Your task to perform on an android device: Set the phone to "Do not disturb". Image 0: 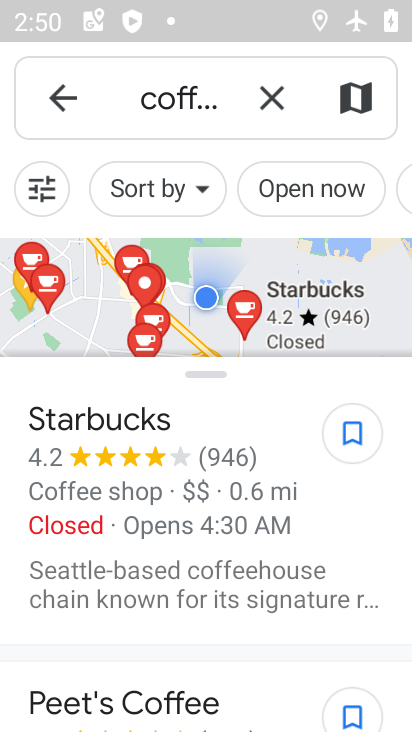
Step 0: press home button
Your task to perform on an android device: Set the phone to "Do not disturb". Image 1: 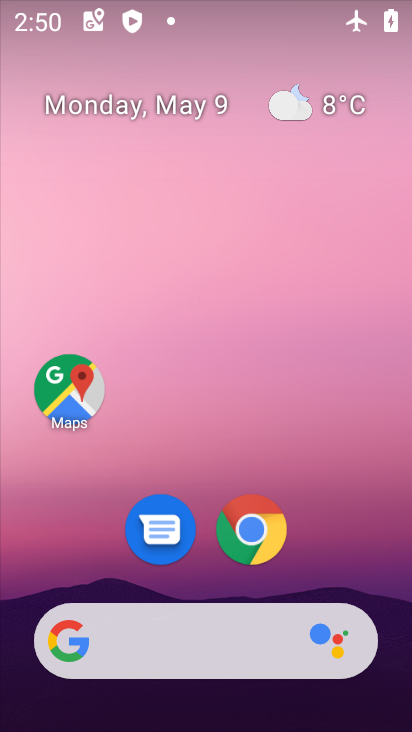
Step 1: drag from (198, 695) to (157, 2)
Your task to perform on an android device: Set the phone to "Do not disturb". Image 2: 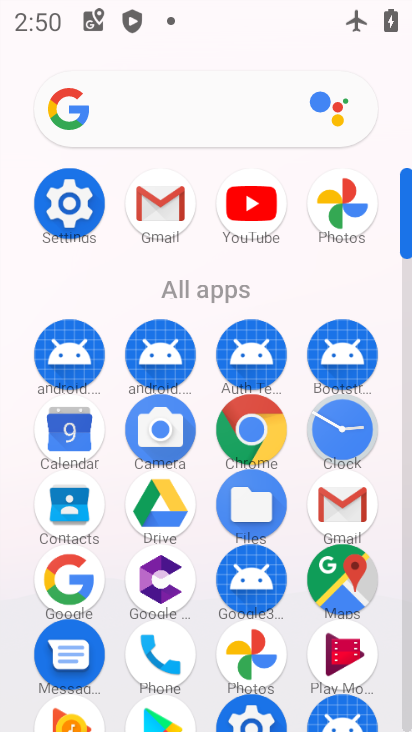
Step 2: click (78, 190)
Your task to perform on an android device: Set the phone to "Do not disturb". Image 3: 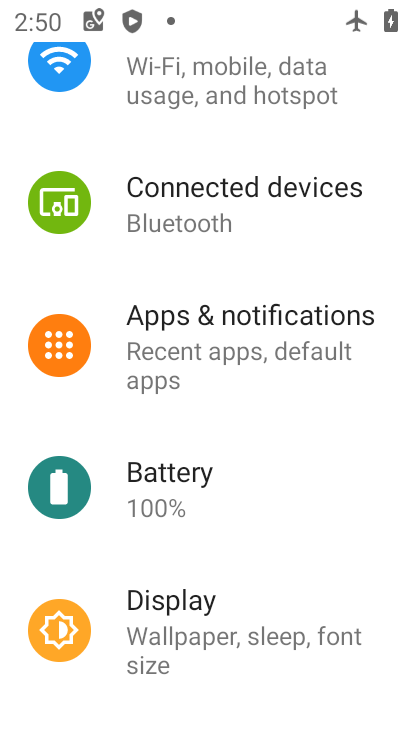
Step 3: drag from (251, 656) to (172, 58)
Your task to perform on an android device: Set the phone to "Do not disturb". Image 4: 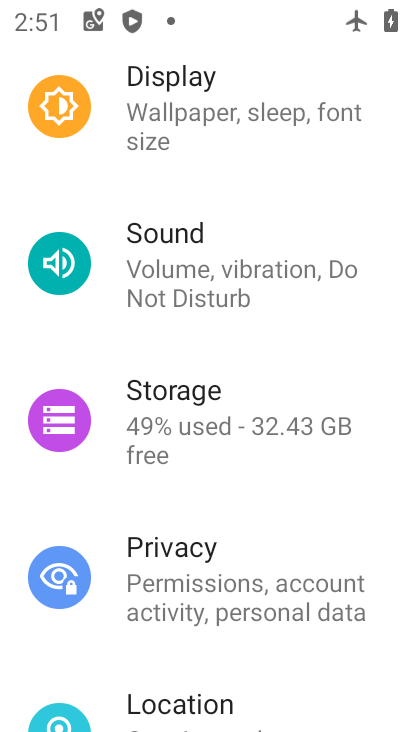
Step 4: click (180, 273)
Your task to perform on an android device: Set the phone to "Do not disturb". Image 5: 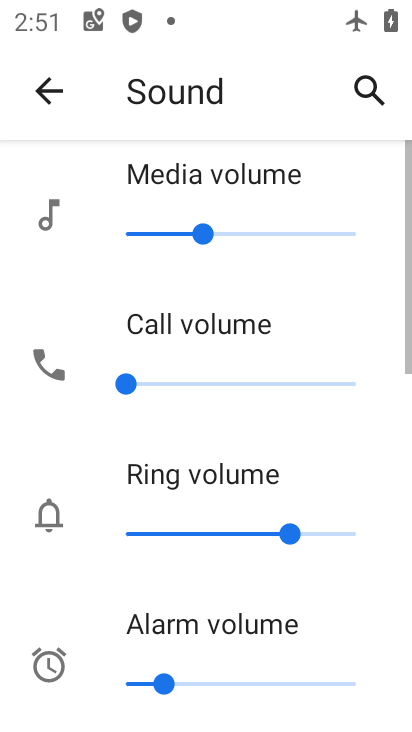
Step 5: drag from (221, 656) to (184, 23)
Your task to perform on an android device: Set the phone to "Do not disturb". Image 6: 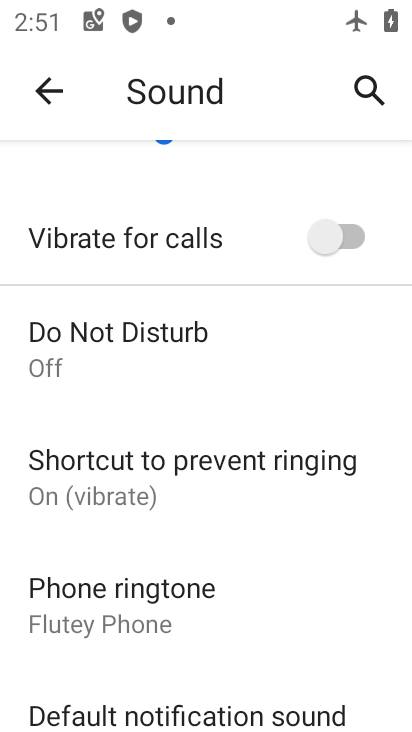
Step 6: click (171, 352)
Your task to perform on an android device: Set the phone to "Do not disturb". Image 7: 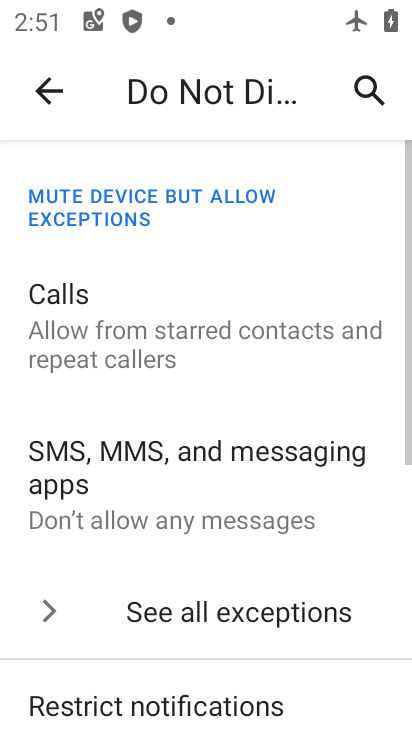
Step 7: drag from (206, 579) to (197, 68)
Your task to perform on an android device: Set the phone to "Do not disturb". Image 8: 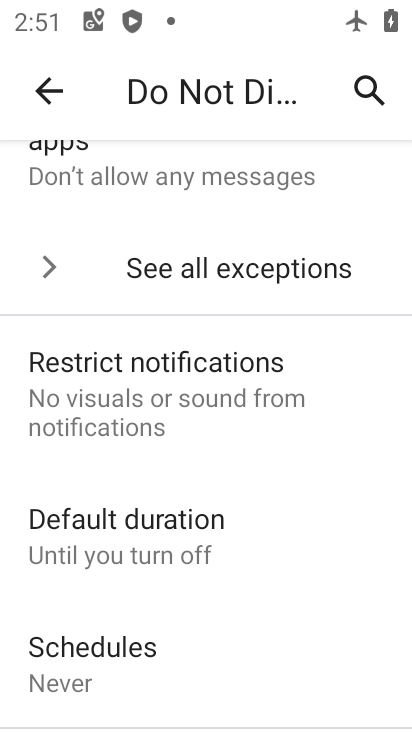
Step 8: drag from (169, 635) to (84, 38)
Your task to perform on an android device: Set the phone to "Do not disturb". Image 9: 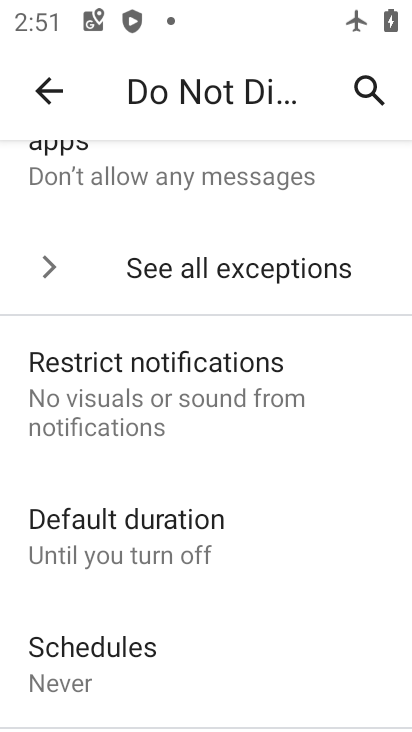
Step 9: drag from (153, 691) to (191, 155)
Your task to perform on an android device: Set the phone to "Do not disturb". Image 10: 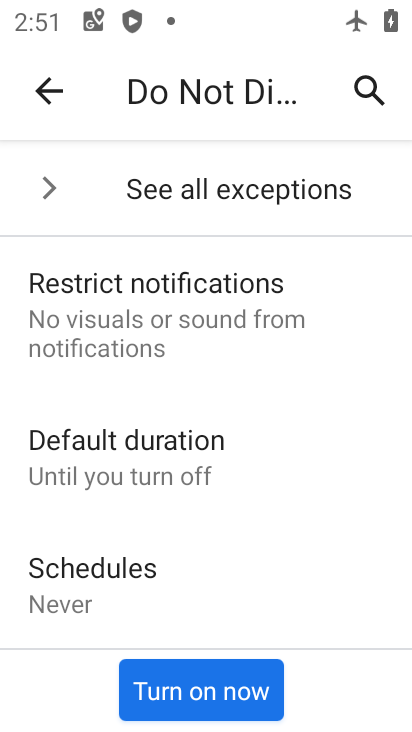
Step 10: click (151, 681)
Your task to perform on an android device: Set the phone to "Do not disturb". Image 11: 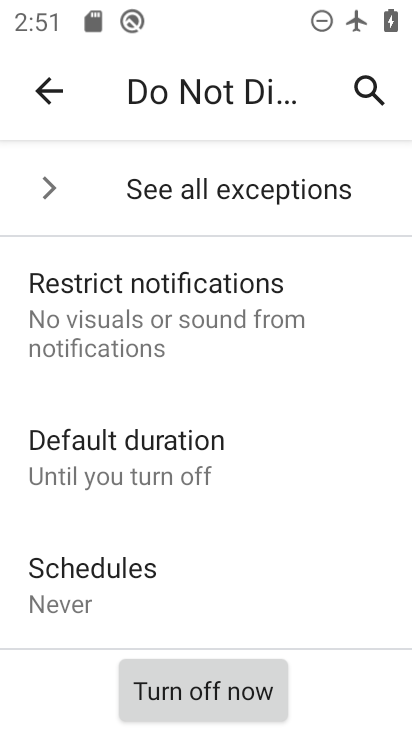
Step 11: task complete